Your task to perform on an android device: open app "Truecaller" (install if not already installed) and go to login screen Image 0: 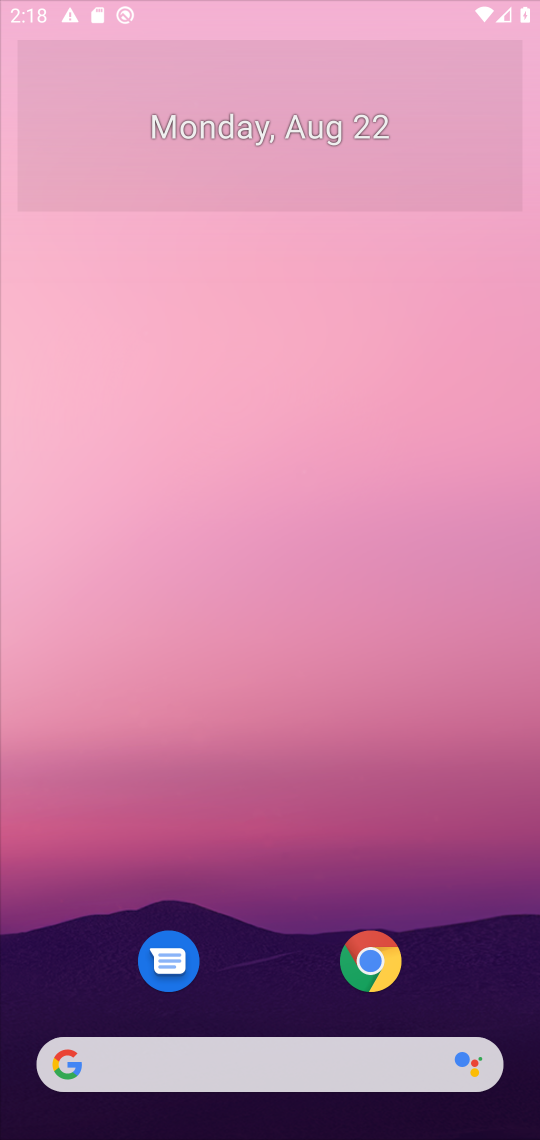
Step 0: press home button
Your task to perform on an android device: open app "Truecaller" (install if not already installed) and go to login screen Image 1: 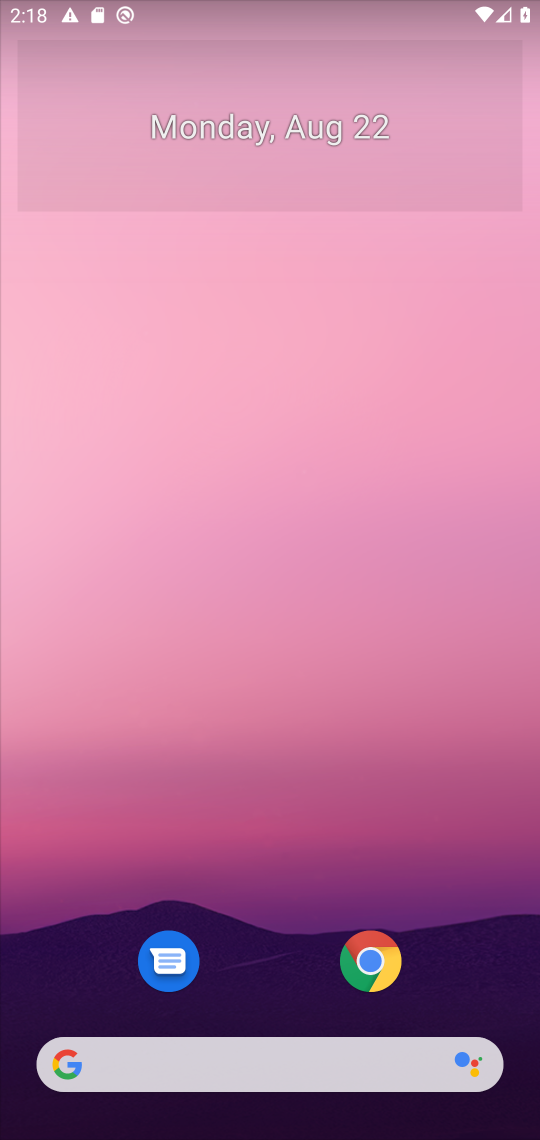
Step 1: drag from (465, 969) to (470, 161)
Your task to perform on an android device: open app "Truecaller" (install if not already installed) and go to login screen Image 2: 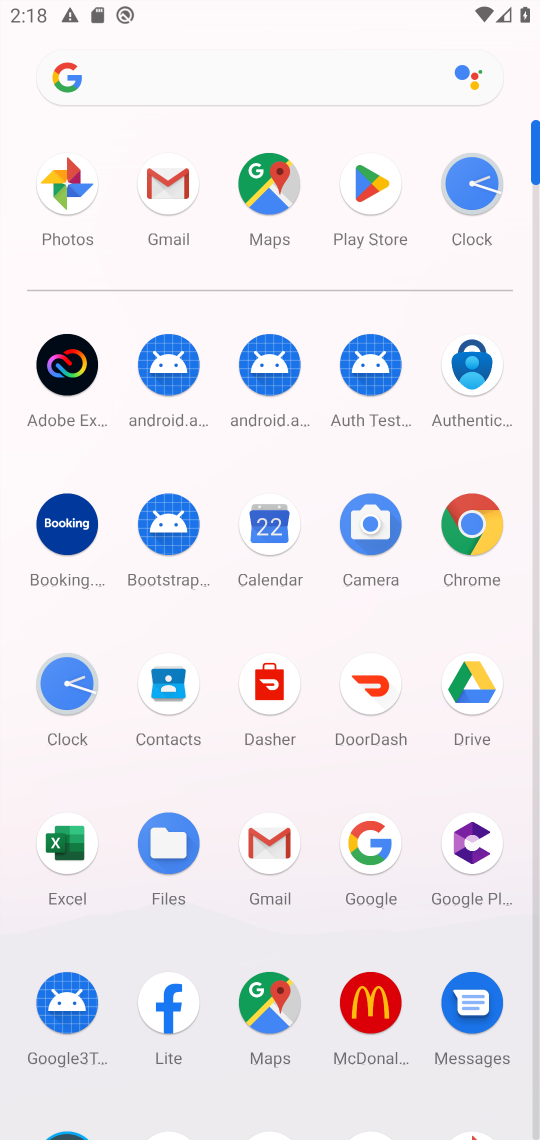
Step 2: click (366, 178)
Your task to perform on an android device: open app "Truecaller" (install if not already installed) and go to login screen Image 3: 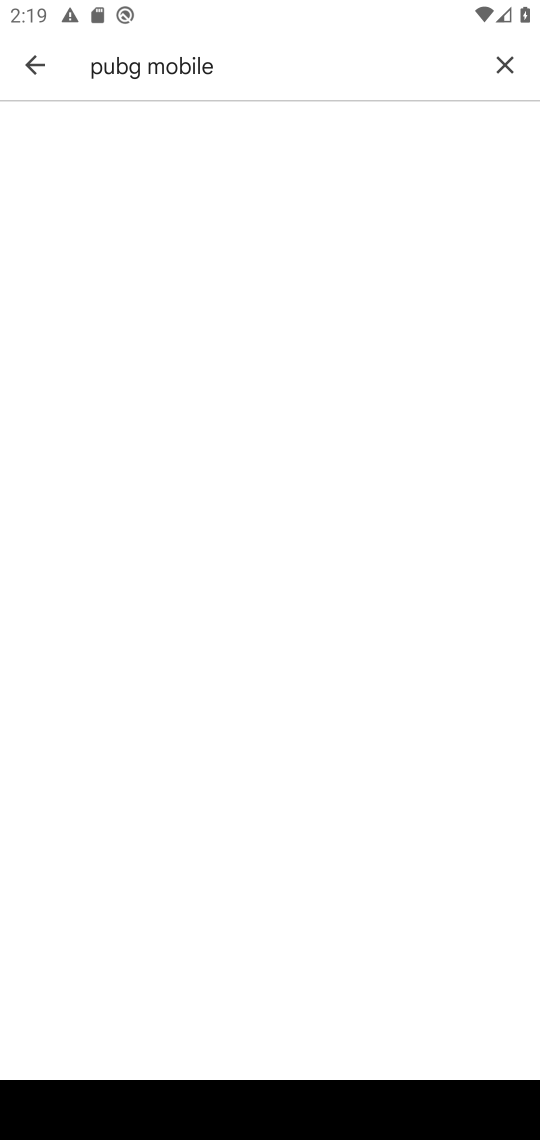
Step 3: press back button
Your task to perform on an android device: open app "Truecaller" (install if not already installed) and go to login screen Image 4: 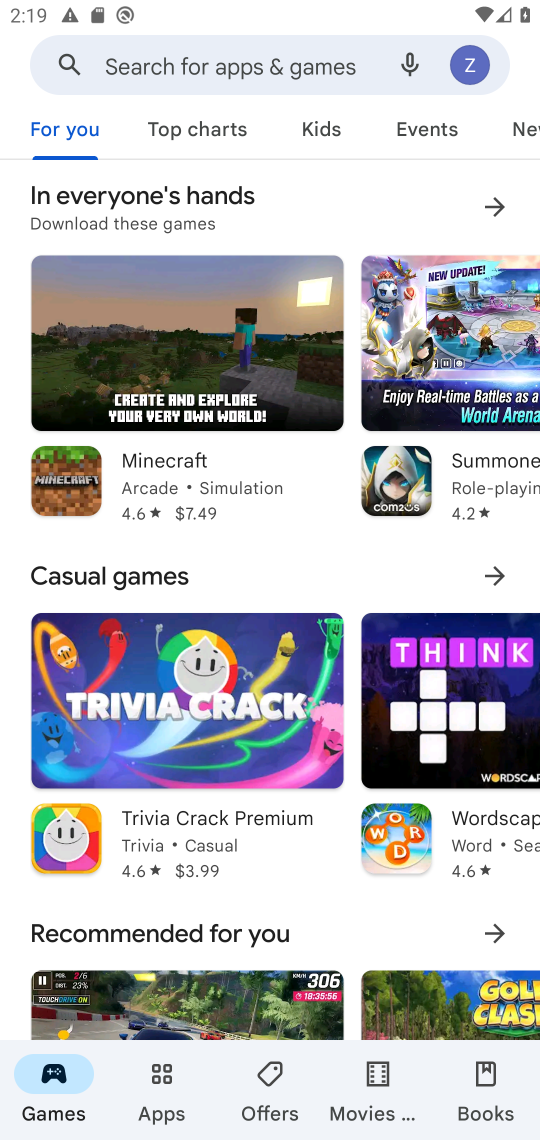
Step 4: click (301, 64)
Your task to perform on an android device: open app "Truecaller" (install if not already installed) and go to login screen Image 5: 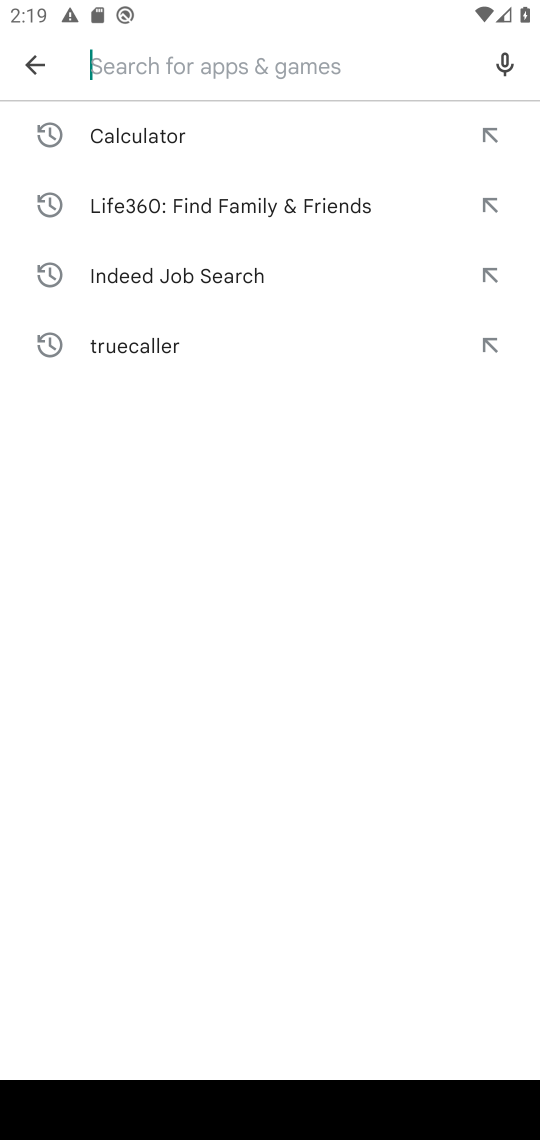
Step 5: press enter
Your task to perform on an android device: open app "Truecaller" (install if not already installed) and go to login screen Image 6: 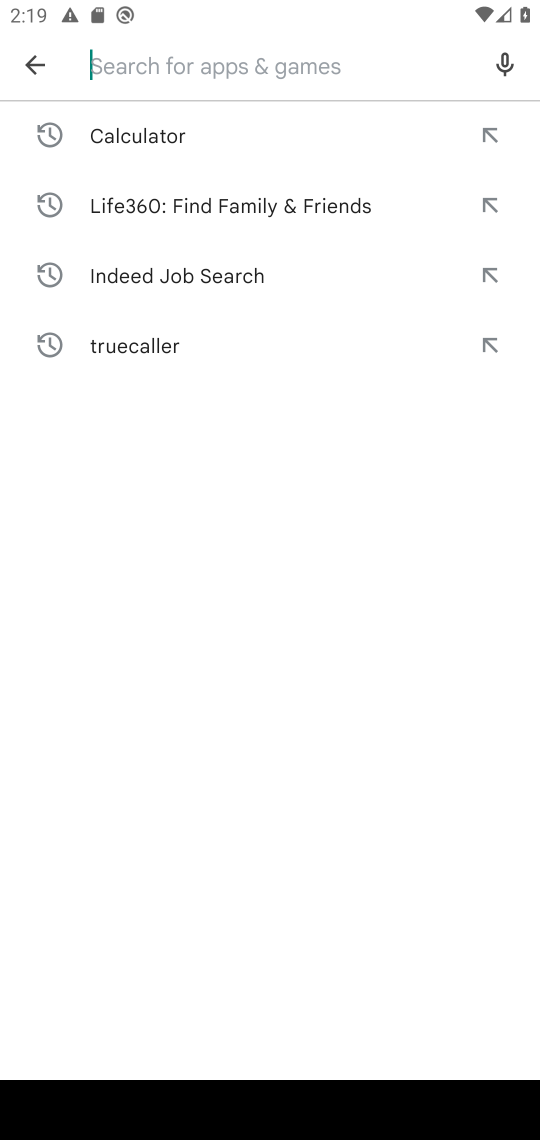
Step 6: type "truecaller"
Your task to perform on an android device: open app "Truecaller" (install if not already installed) and go to login screen Image 7: 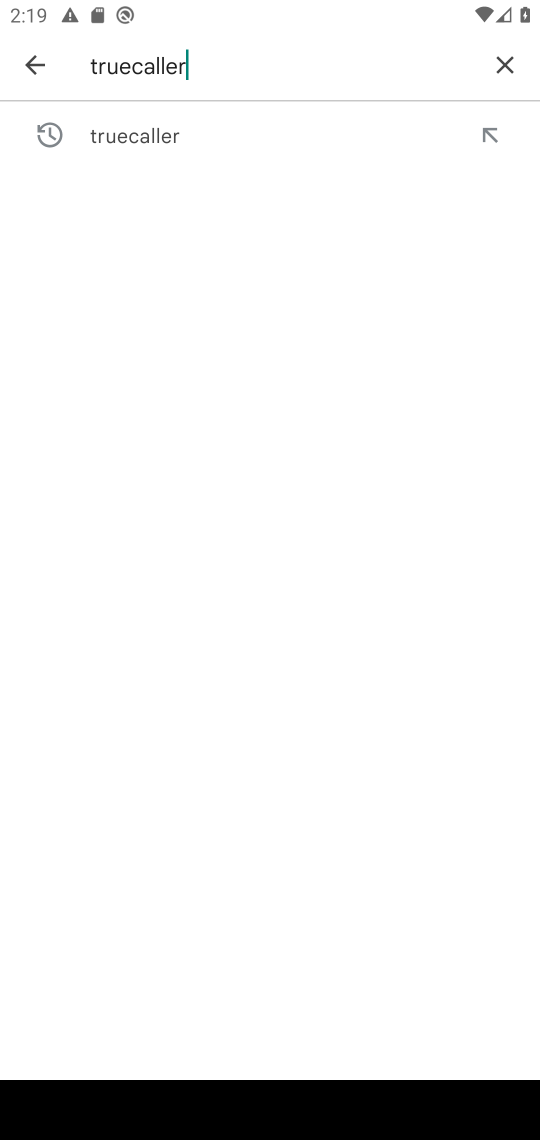
Step 7: click (199, 136)
Your task to perform on an android device: open app "Truecaller" (install if not already installed) and go to login screen Image 8: 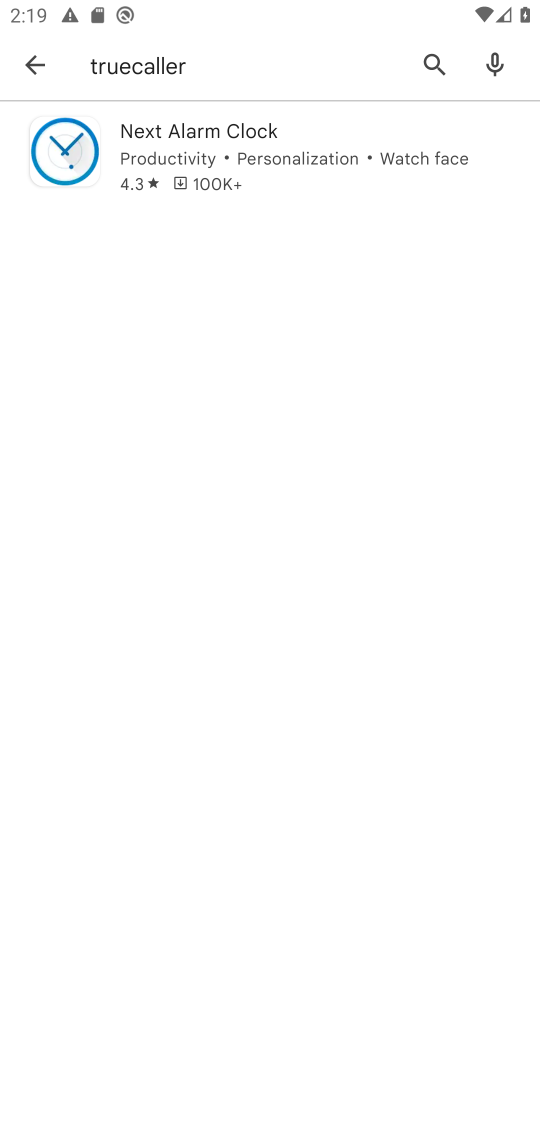
Step 8: task complete